Your task to perform on an android device: check data usage Image 0: 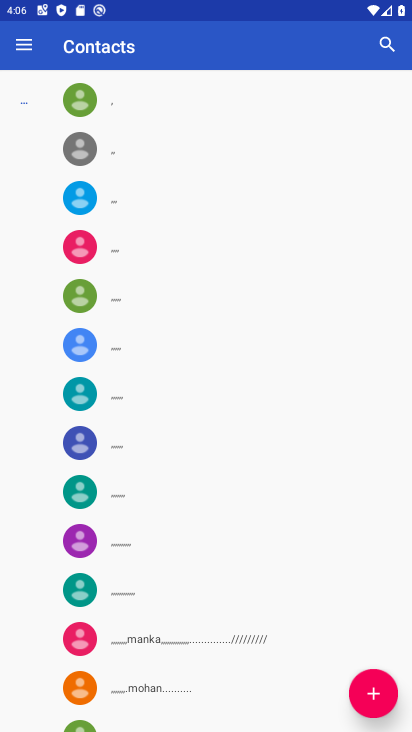
Step 0: press back button
Your task to perform on an android device: check data usage Image 1: 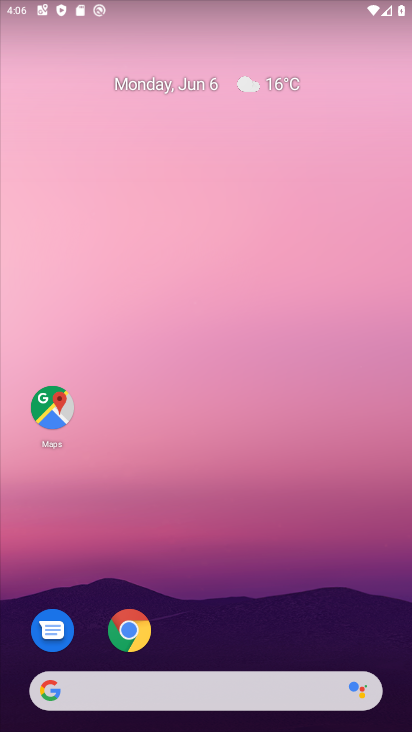
Step 1: drag from (203, 655) to (282, 101)
Your task to perform on an android device: check data usage Image 2: 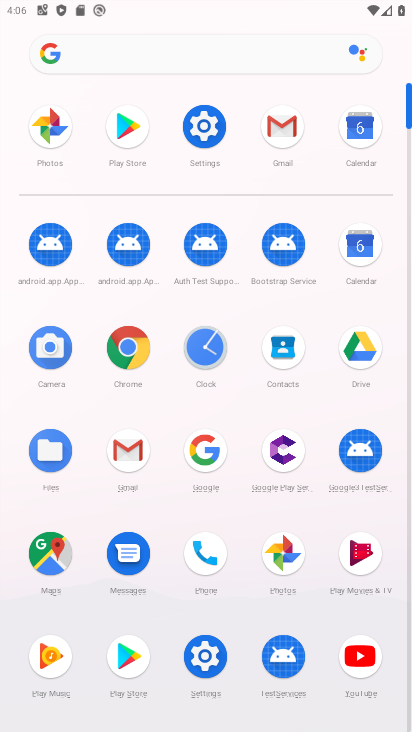
Step 2: click (207, 119)
Your task to perform on an android device: check data usage Image 3: 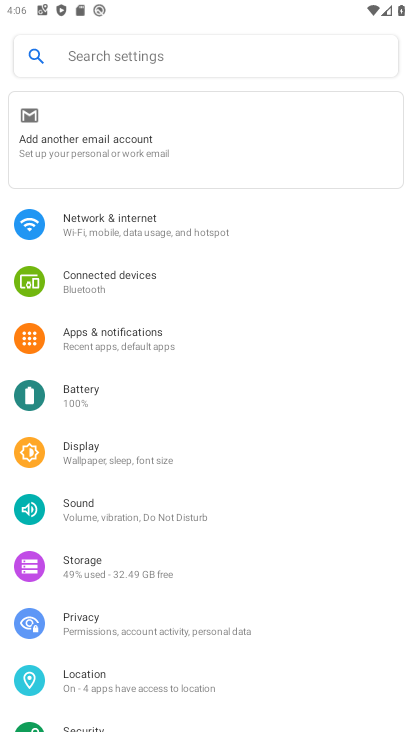
Step 3: click (113, 223)
Your task to perform on an android device: check data usage Image 4: 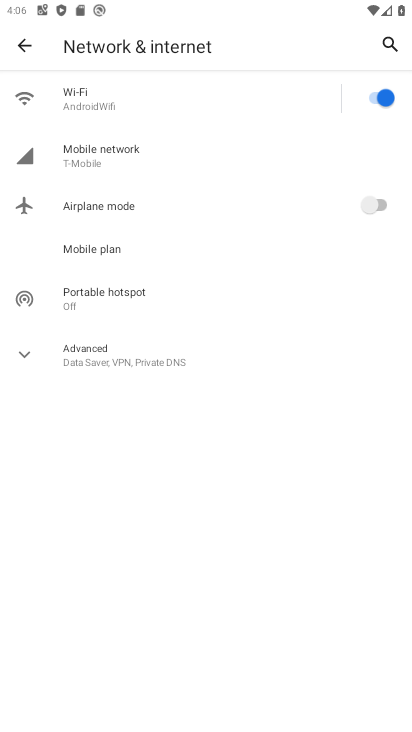
Step 4: click (130, 152)
Your task to perform on an android device: check data usage Image 5: 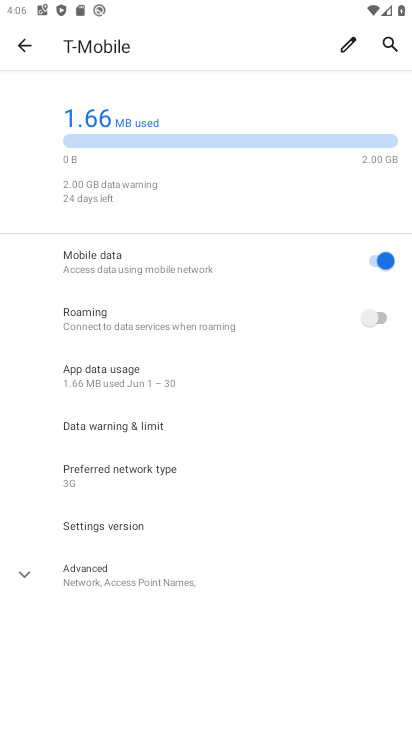
Step 5: click (123, 351)
Your task to perform on an android device: check data usage Image 6: 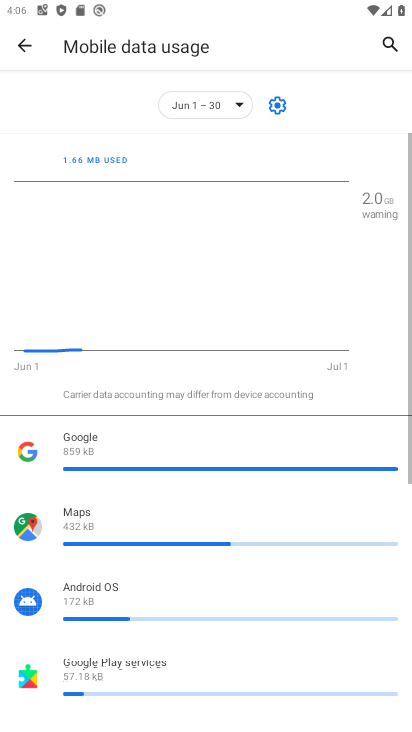
Step 6: task complete